Your task to perform on an android device: set an alarm Image 0: 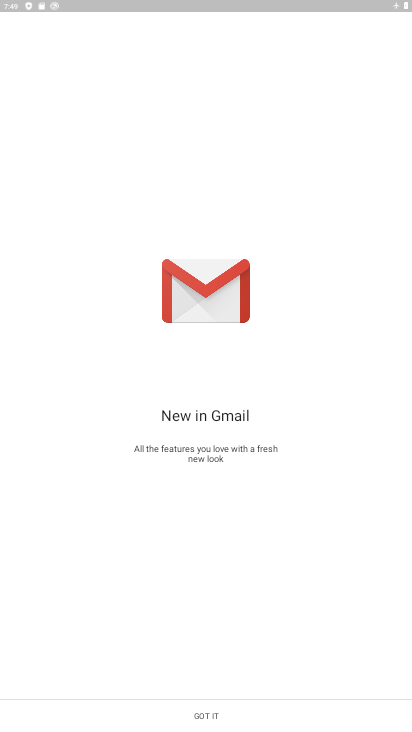
Step 0: press home button
Your task to perform on an android device: set an alarm Image 1: 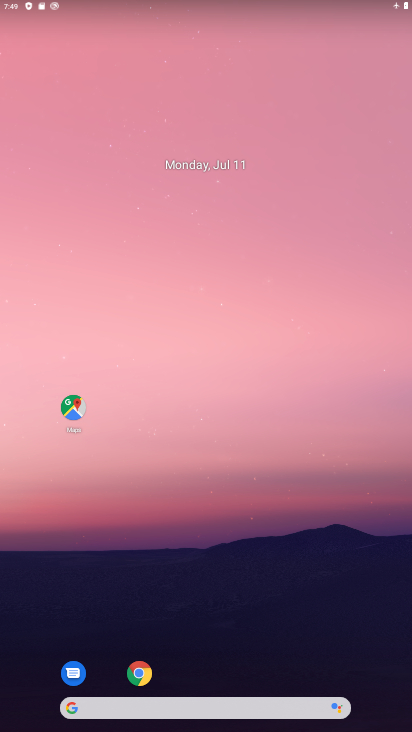
Step 1: drag from (316, 533) to (156, 0)
Your task to perform on an android device: set an alarm Image 2: 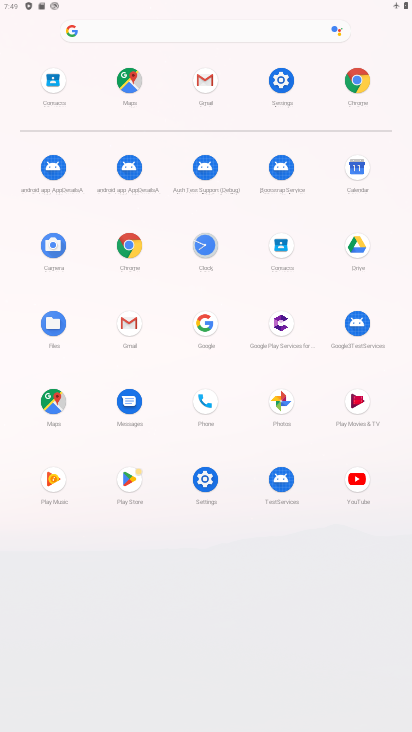
Step 2: click (206, 246)
Your task to perform on an android device: set an alarm Image 3: 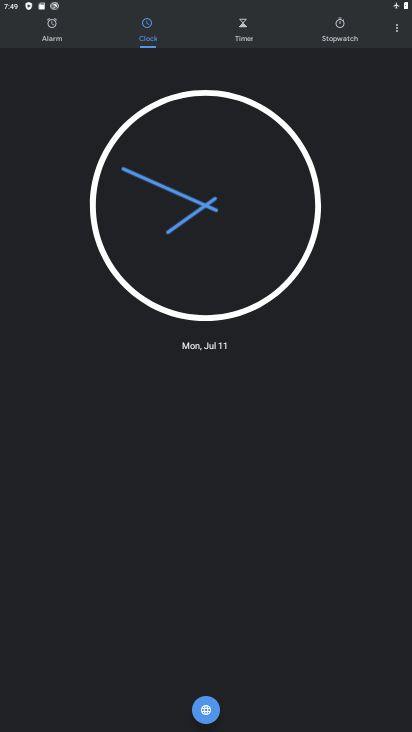
Step 3: click (56, 28)
Your task to perform on an android device: set an alarm Image 4: 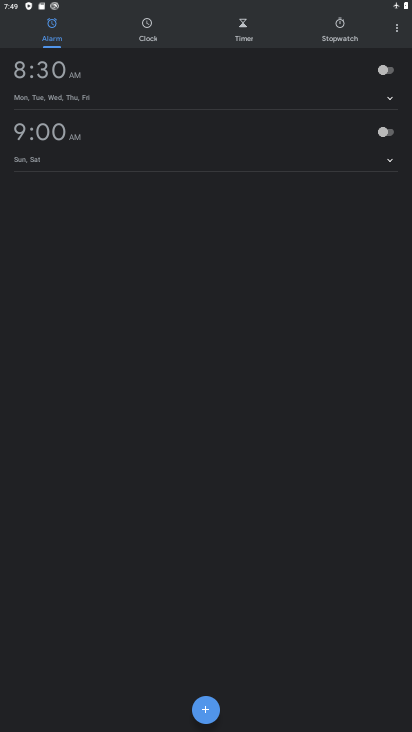
Step 4: click (202, 699)
Your task to perform on an android device: set an alarm Image 5: 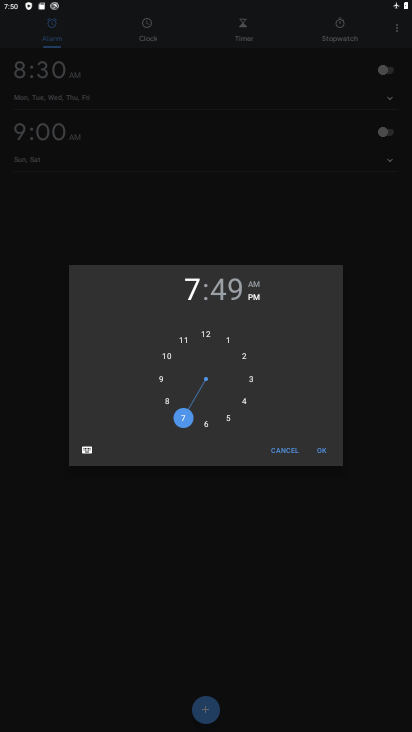
Step 5: click (327, 456)
Your task to perform on an android device: set an alarm Image 6: 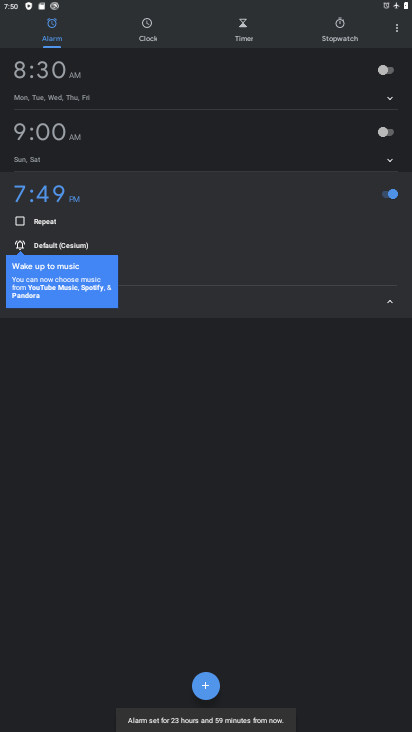
Step 6: task complete